Your task to perform on an android device: turn on showing notifications on the lock screen Image 0: 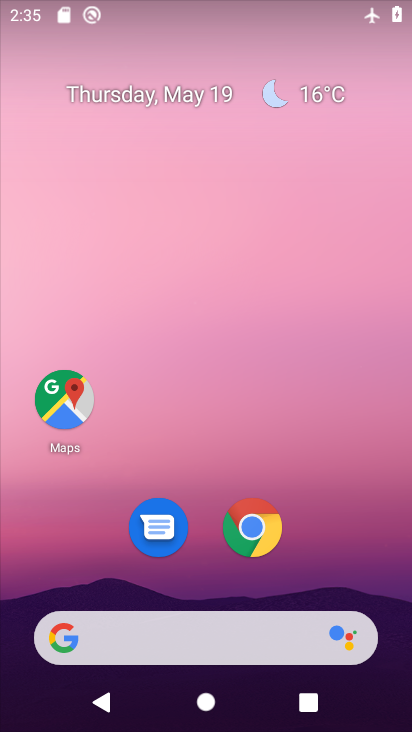
Step 0: drag from (333, 487) to (210, 38)
Your task to perform on an android device: turn on showing notifications on the lock screen Image 1: 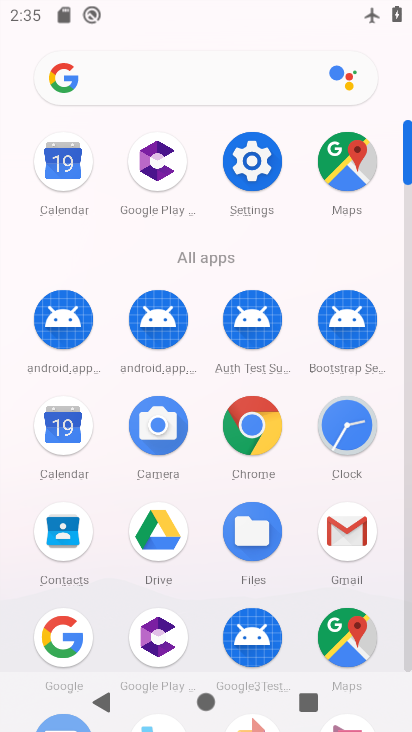
Step 1: click (256, 145)
Your task to perform on an android device: turn on showing notifications on the lock screen Image 2: 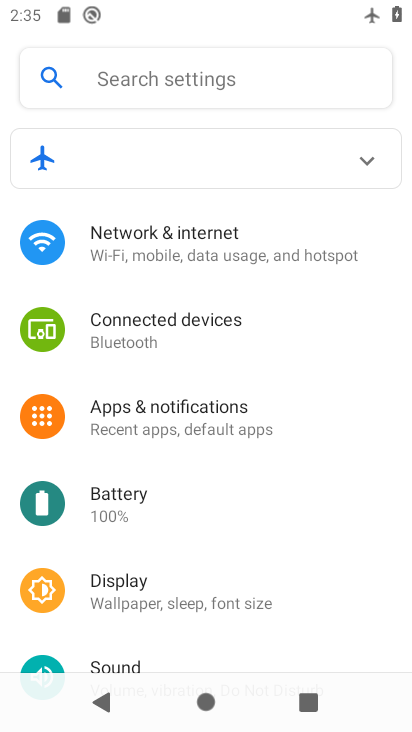
Step 2: click (228, 392)
Your task to perform on an android device: turn on showing notifications on the lock screen Image 3: 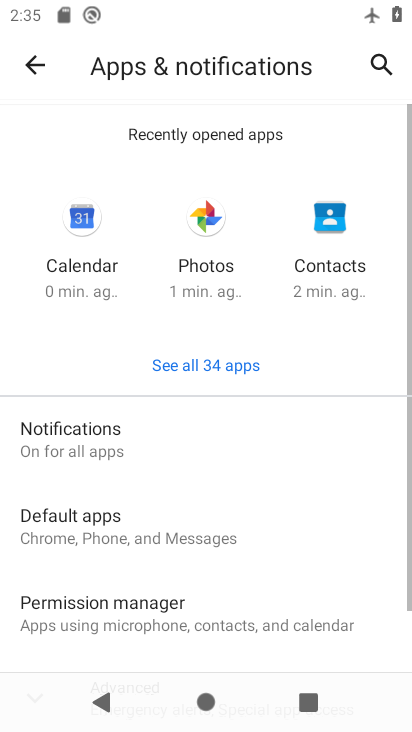
Step 3: drag from (267, 602) to (233, 308)
Your task to perform on an android device: turn on showing notifications on the lock screen Image 4: 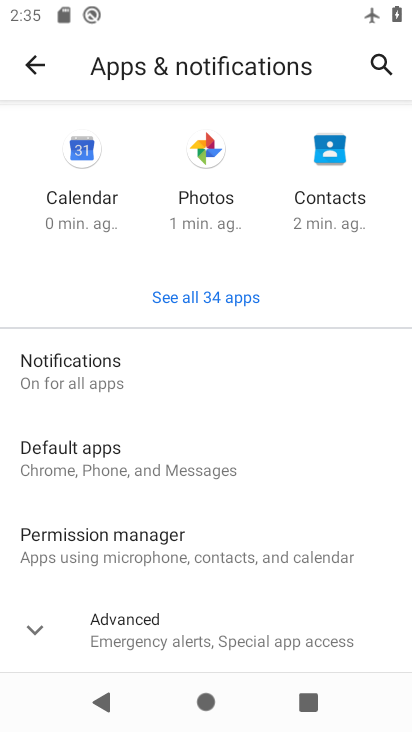
Step 4: drag from (252, 601) to (229, 287)
Your task to perform on an android device: turn on showing notifications on the lock screen Image 5: 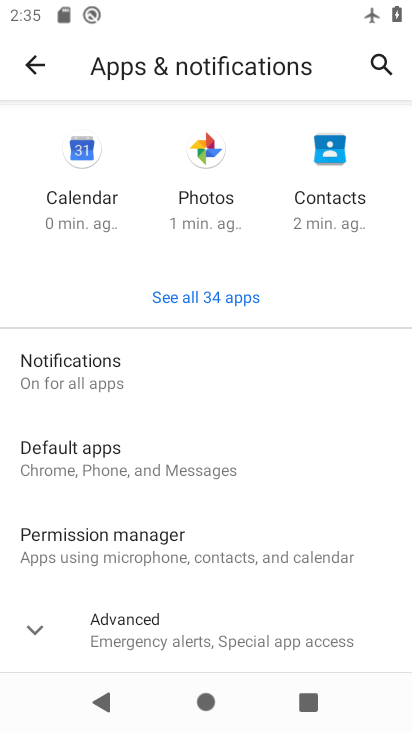
Step 5: click (174, 622)
Your task to perform on an android device: turn on showing notifications on the lock screen Image 6: 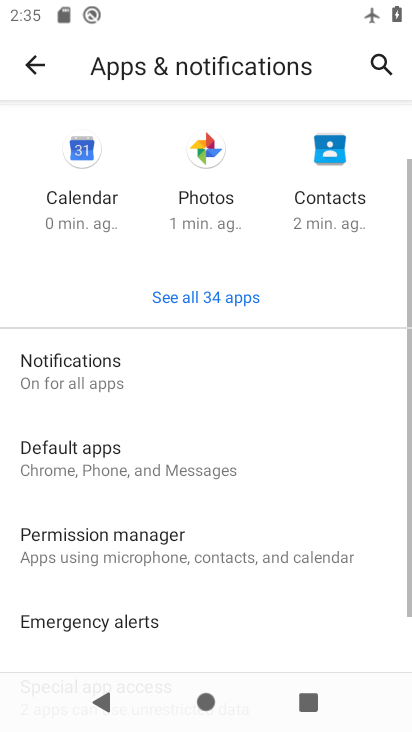
Step 6: drag from (241, 613) to (289, 202)
Your task to perform on an android device: turn on showing notifications on the lock screen Image 7: 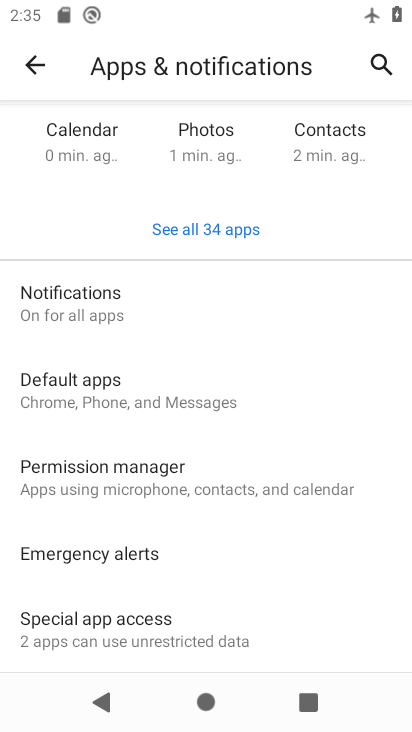
Step 7: drag from (220, 560) to (198, 253)
Your task to perform on an android device: turn on showing notifications on the lock screen Image 8: 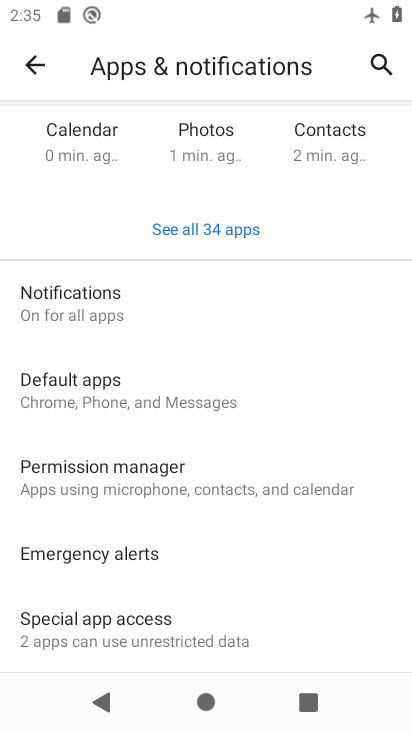
Step 8: click (189, 306)
Your task to perform on an android device: turn on showing notifications on the lock screen Image 9: 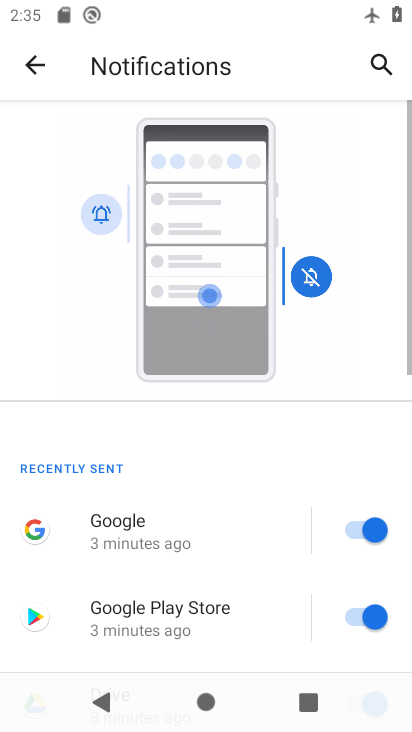
Step 9: drag from (248, 555) to (191, 84)
Your task to perform on an android device: turn on showing notifications on the lock screen Image 10: 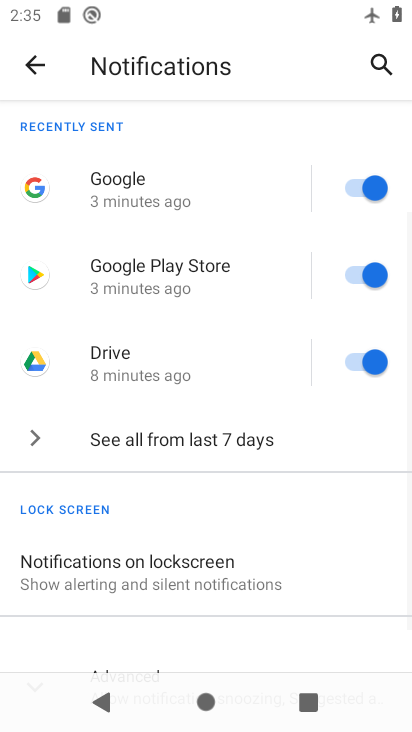
Step 10: drag from (230, 481) to (201, 315)
Your task to perform on an android device: turn on showing notifications on the lock screen Image 11: 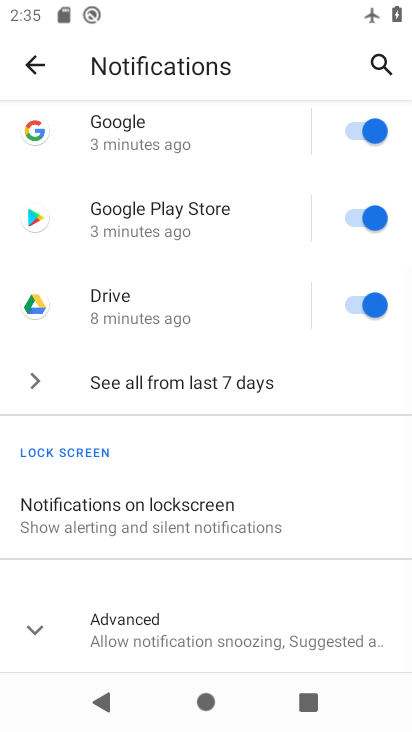
Step 11: click (182, 514)
Your task to perform on an android device: turn on showing notifications on the lock screen Image 12: 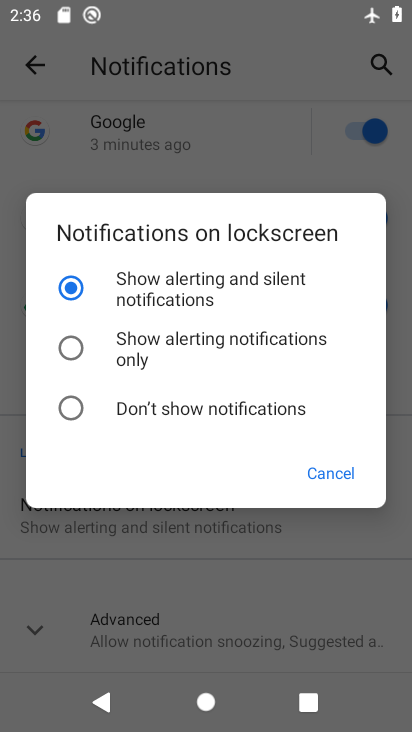
Step 12: task complete